Your task to perform on an android device: Show me the alarms in the clock app Image 0: 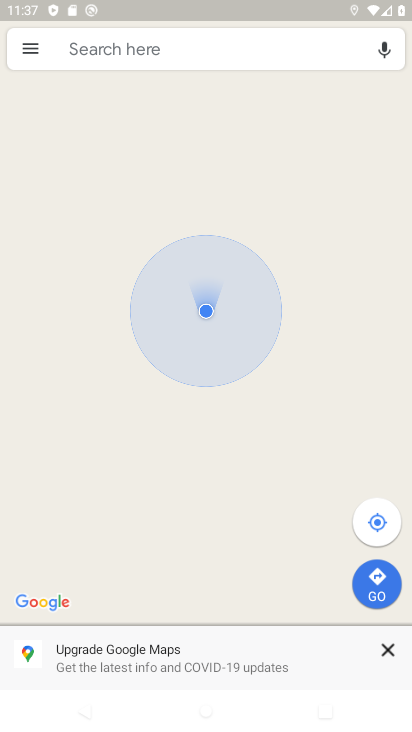
Step 0: press home button
Your task to perform on an android device: Show me the alarms in the clock app Image 1: 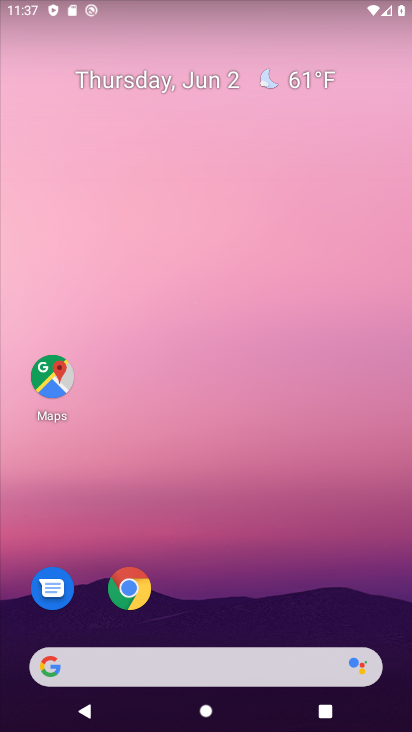
Step 1: drag from (192, 621) to (209, 249)
Your task to perform on an android device: Show me the alarms in the clock app Image 2: 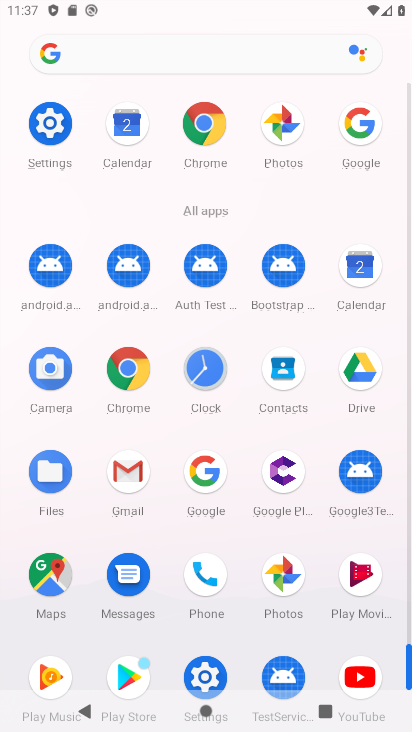
Step 2: click (216, 384)
Your task to perform on an android device: Show me the alarms in the clock app Image 3: 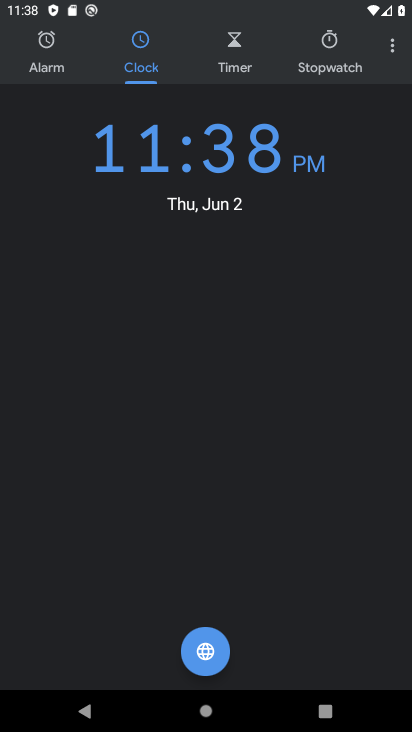
Step 3: click (51, 71)
Your task to perform on an android device: Show me the alarms in the clock app Image 4: 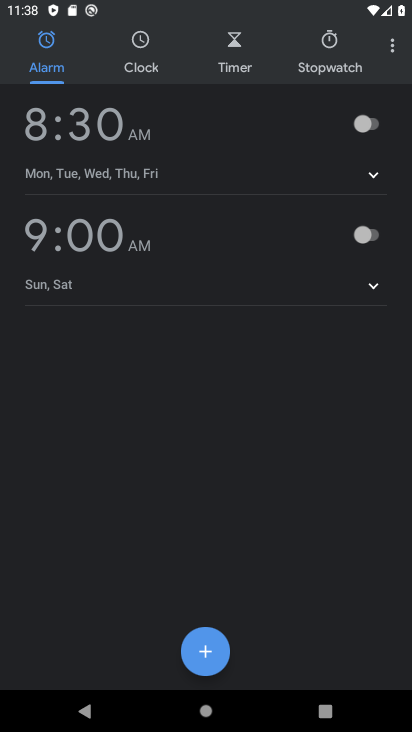
Step 4: task complete